Your task to perform on an android device: check battery use Image 0: 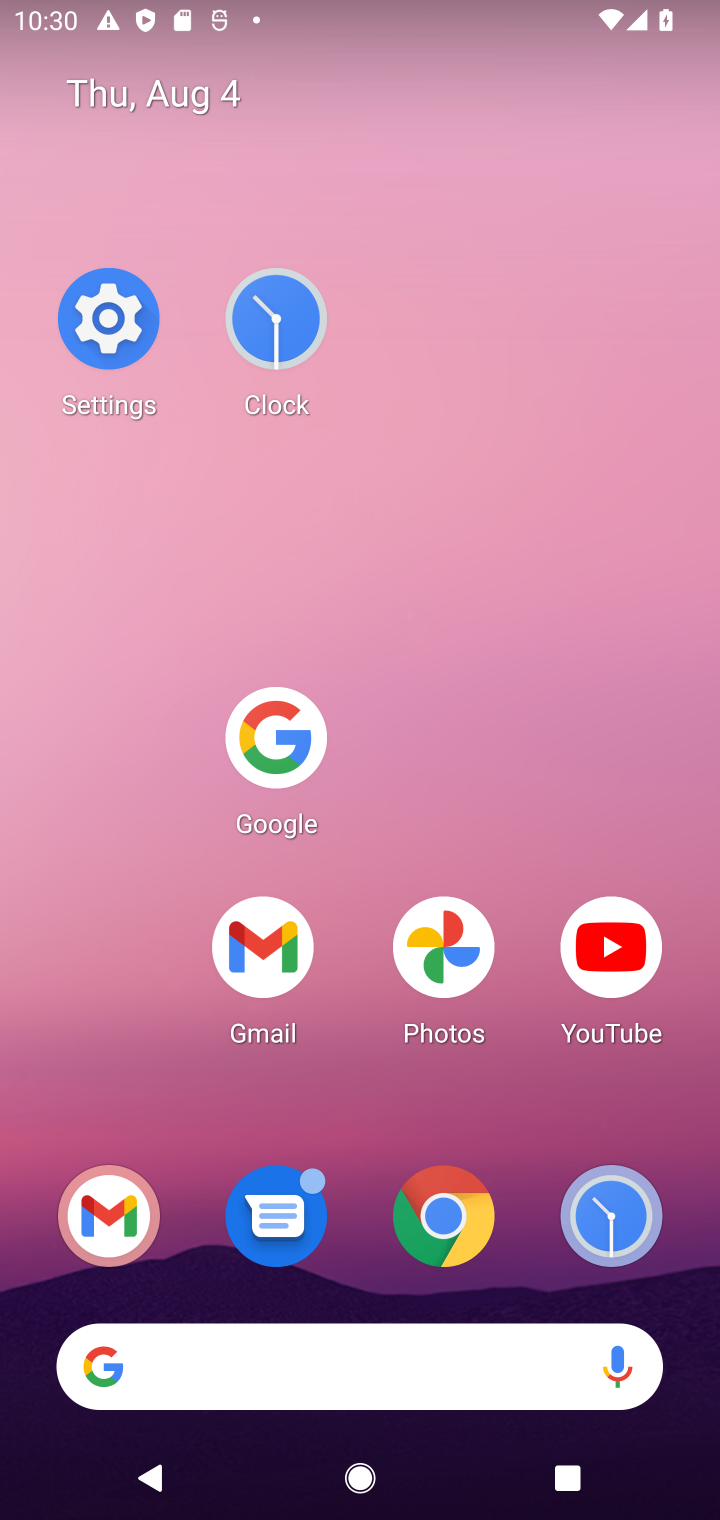
Step 0: click (138, 312)
Your task to perform on an android device: check battery use Image 1: 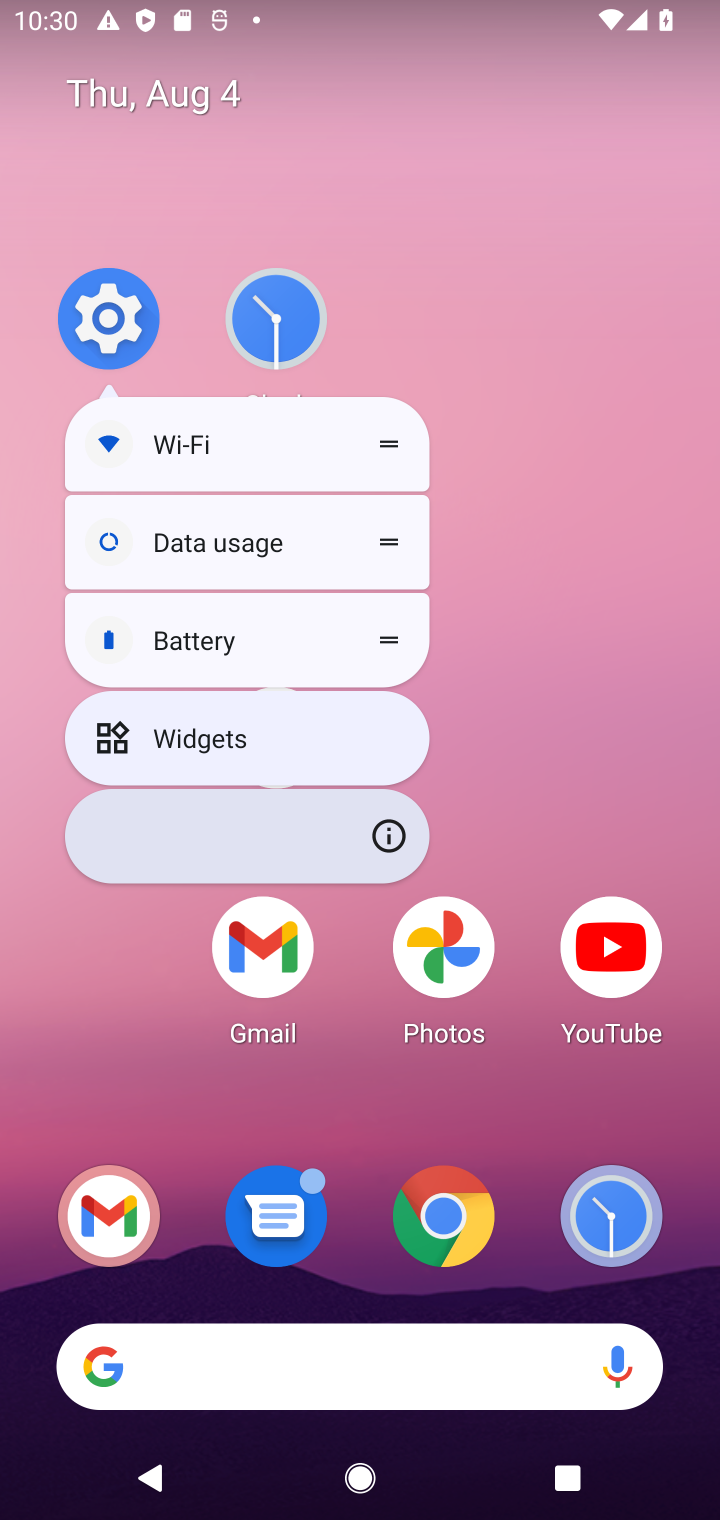
Step 1: click (138, 312)
Your task to perform on an android device: check battery use Image 2: 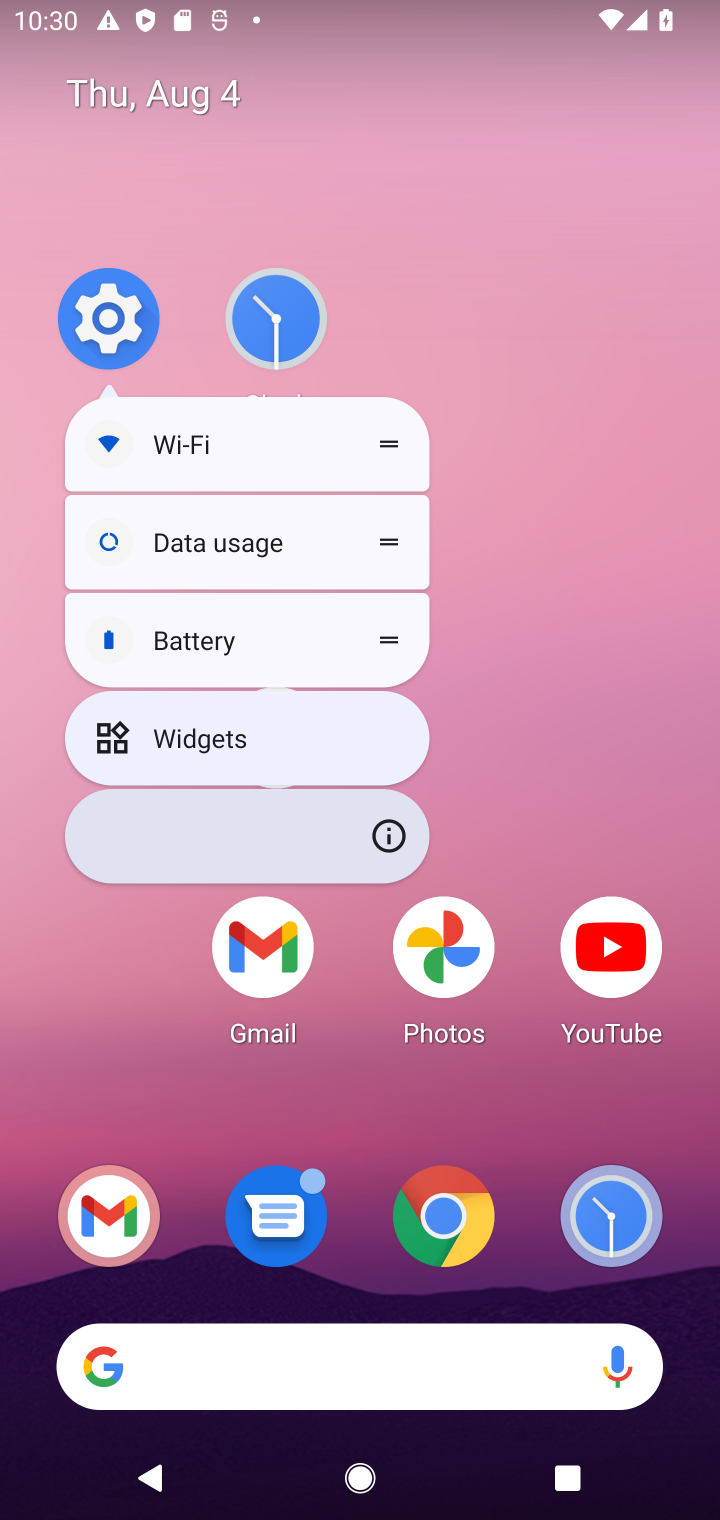
Step 2: click (138, 312)
Your task to perform on an android device: check battery use Image 3: 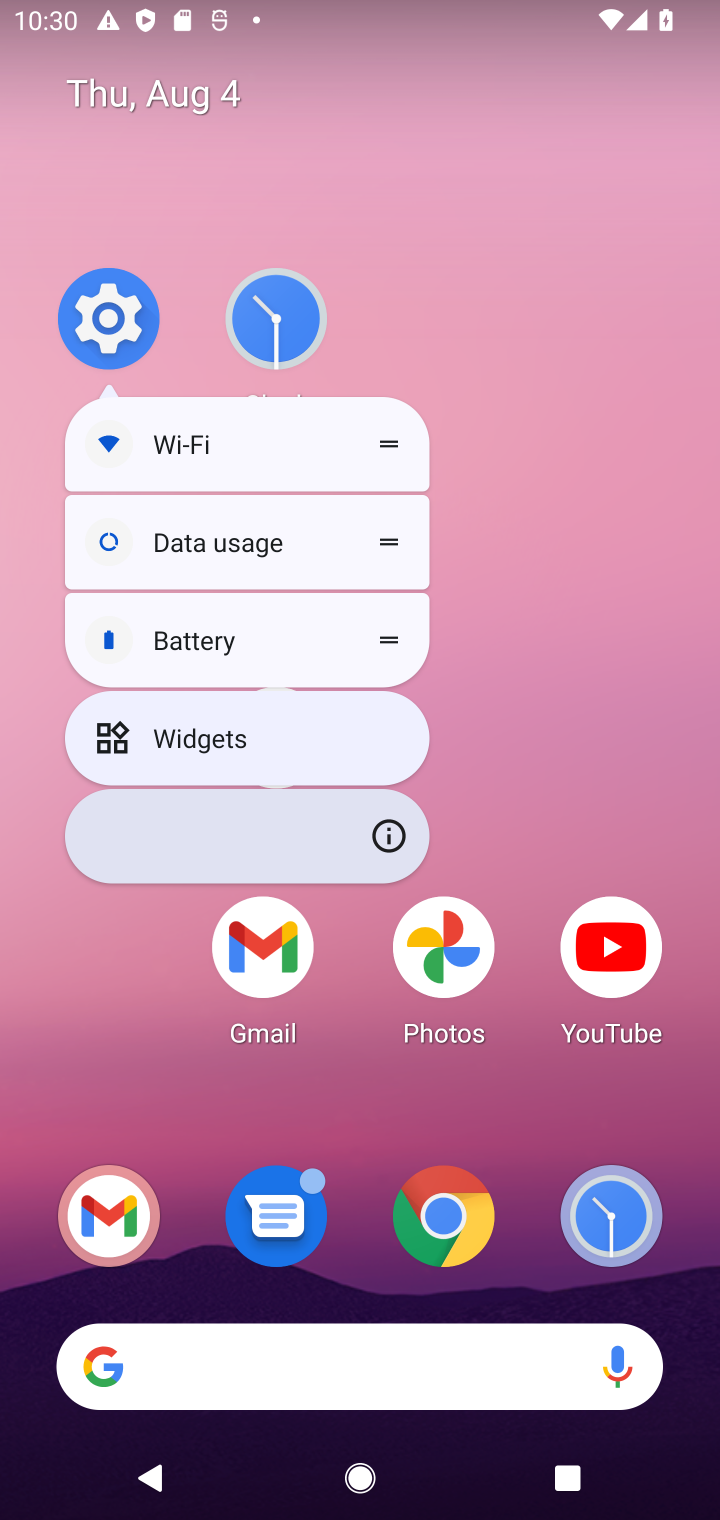
Step 3: click (138, 312)
Your task to perform on an android device: check battery use Image 4: 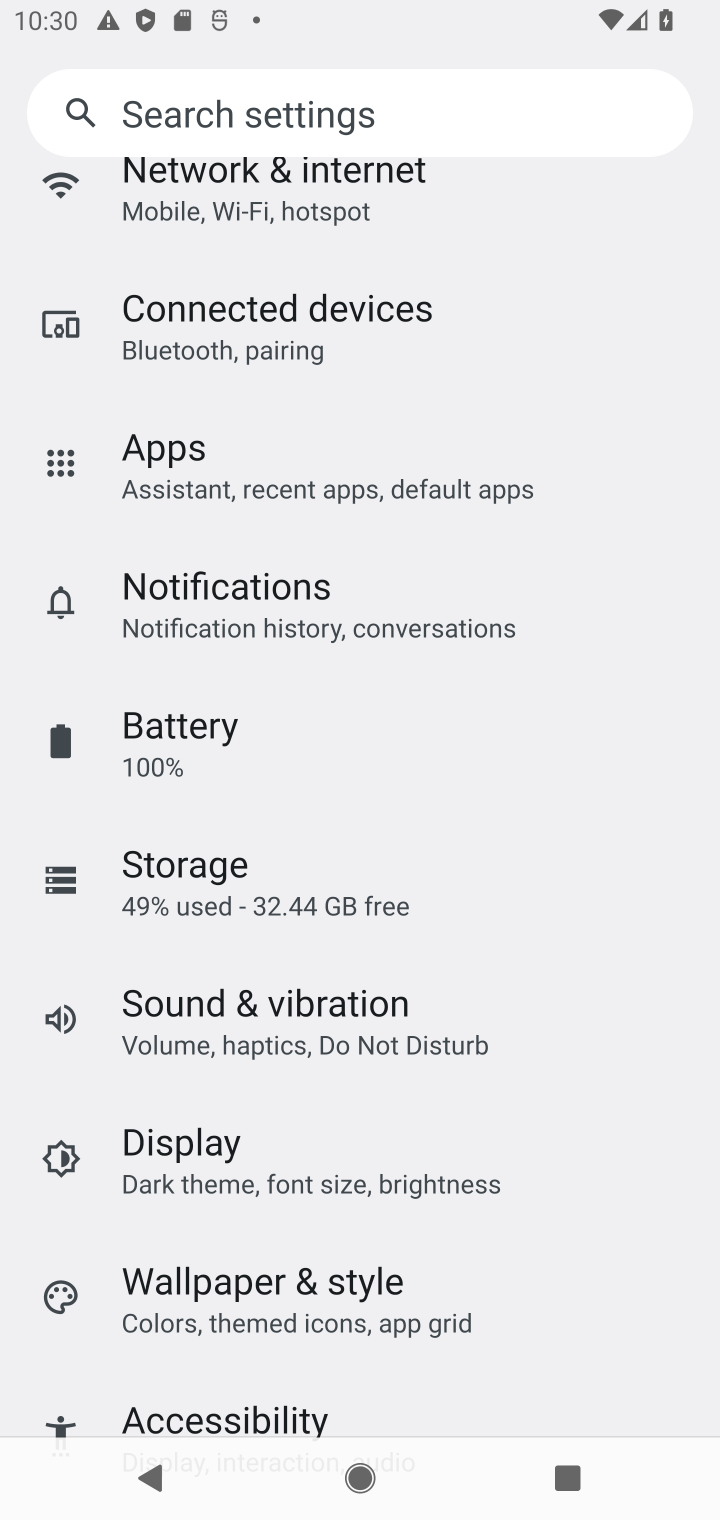
Step 4: click (346, 721)
Your task to perform on an android device: check battery use Image 5: 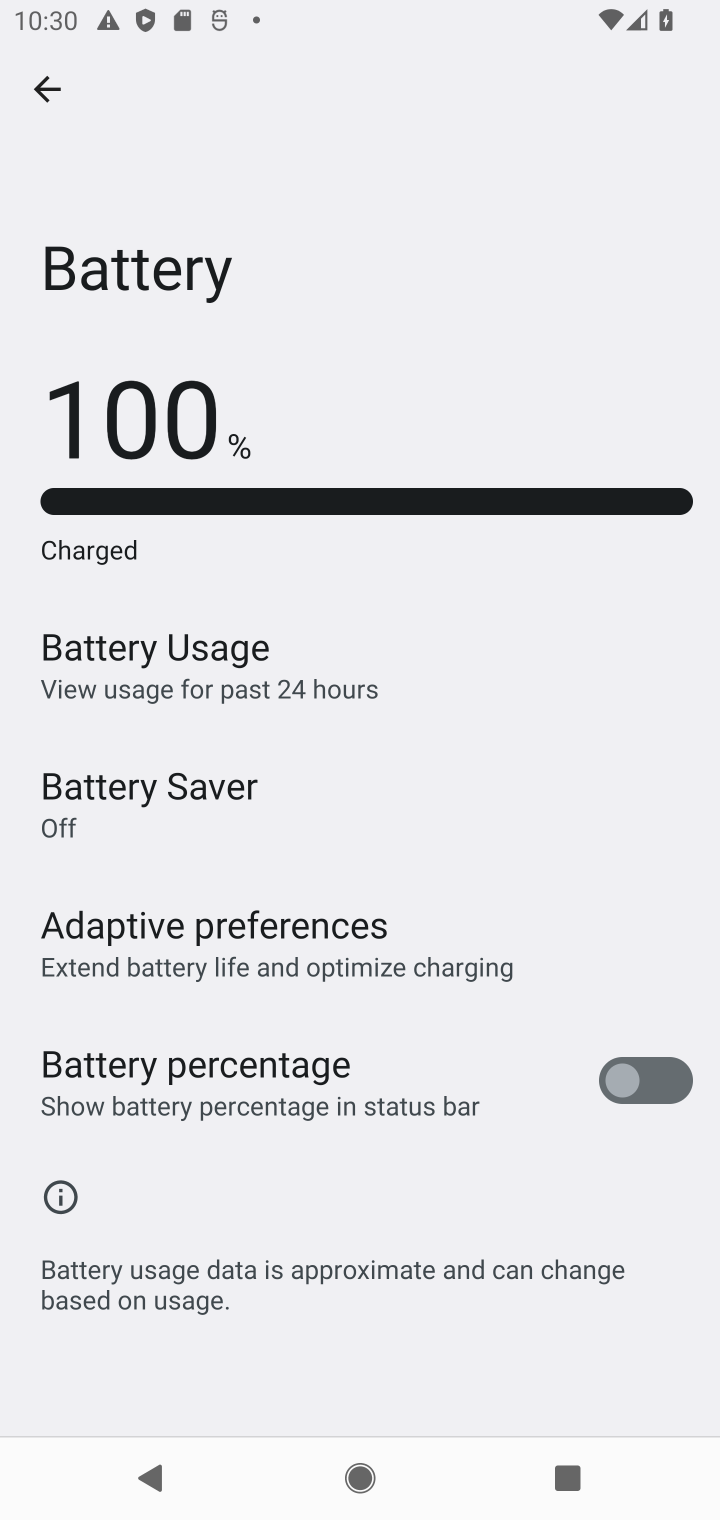
Step 5: click (667, 77)
Your task to perform on an android device: check battery use Image 6: 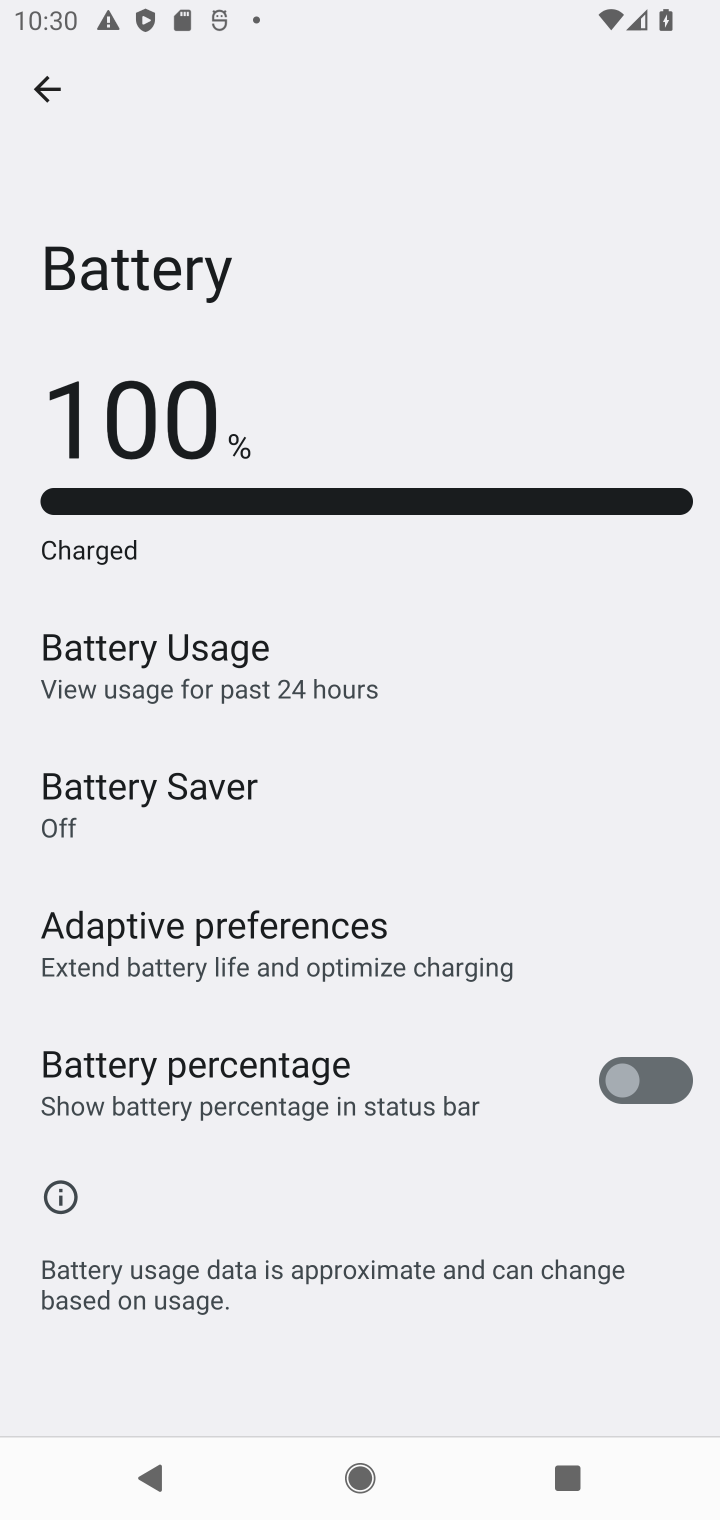
Step 6: click (383, 693)
Your task to perform on an android device: check battery use Image 7: 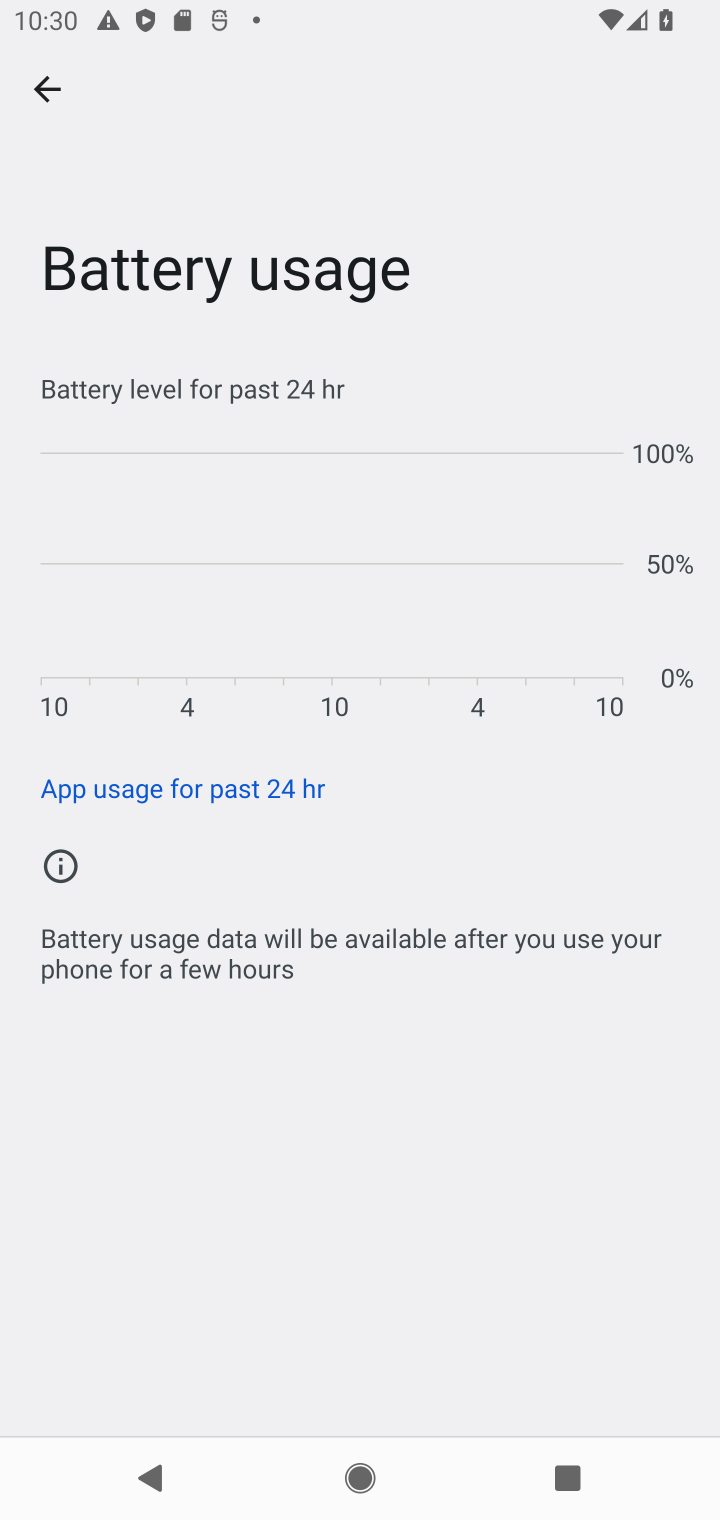
Step 7: task complete